Your task to perform on an android device: uninstall "eBay: The shopping marketplace" Image 0: 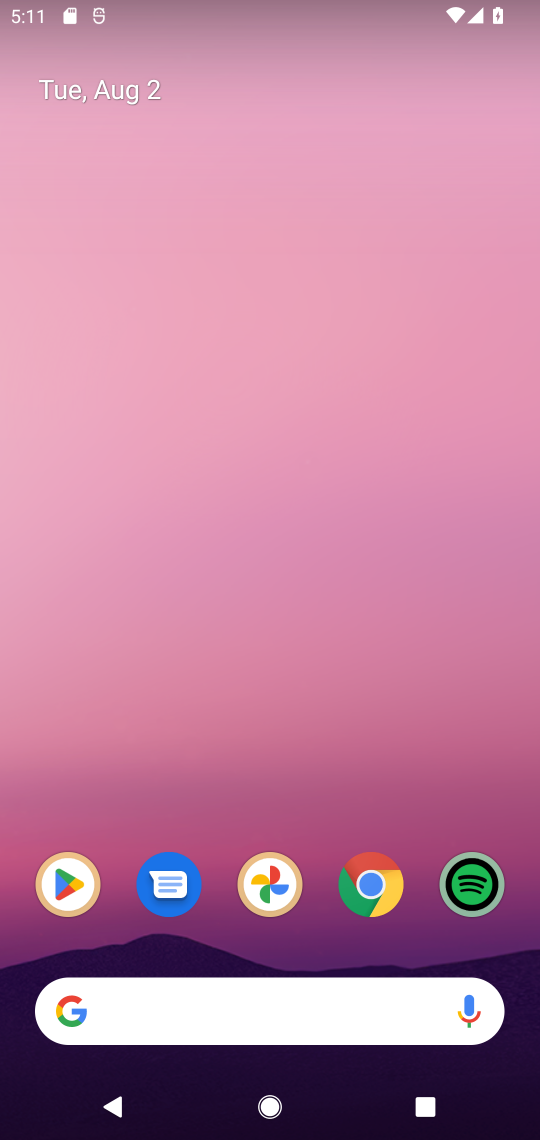
Step 0: drag from (260, 822) to (382, 186)
Your task to perform on an android device: uninstall "eBay: The shopping marketplace" Image 1: 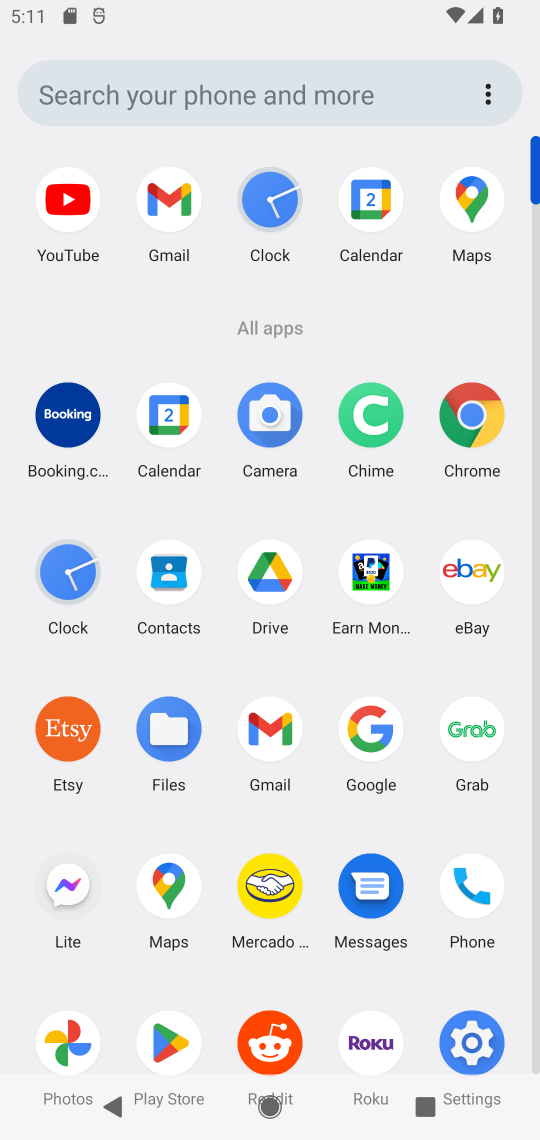
Step 1: click (164, 1044)
Your task to perform on an android device: uninstall "eBay: The shopping marketplace" Image 2: 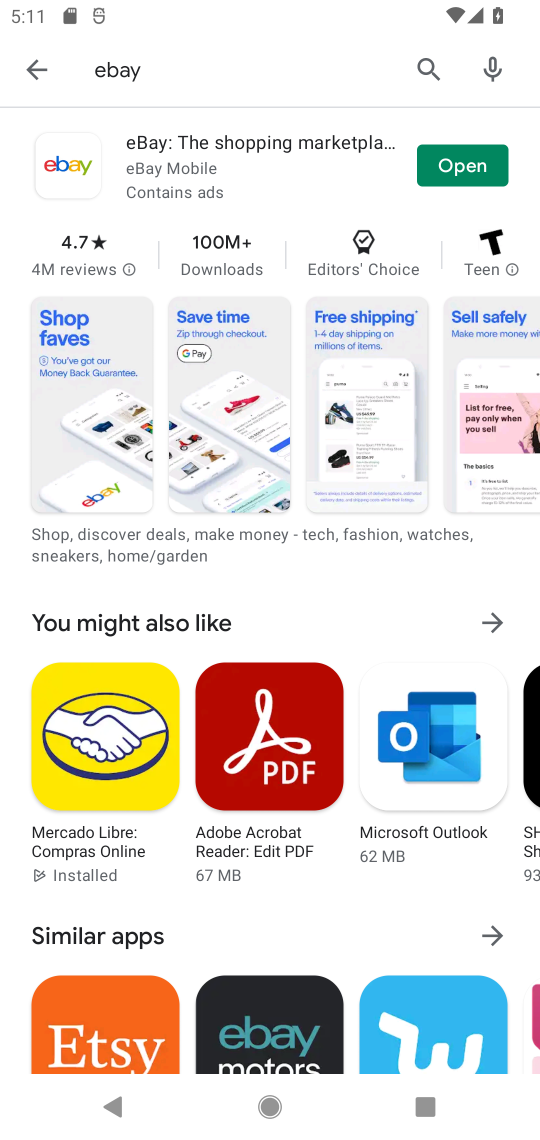
Step 2: task complete